Your task to perform on an android device: Do I have any events this weekend? Image 0: 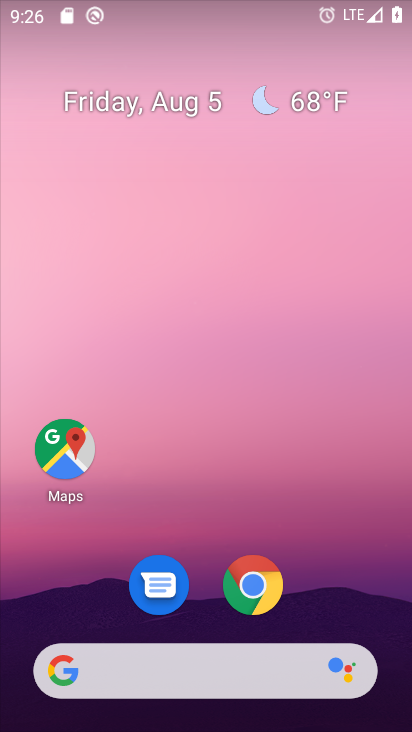
Step 0: drag from (216, 514) to (254, 23)
Your task to perform on an android device: Do I have any events this weekend? Image 1: 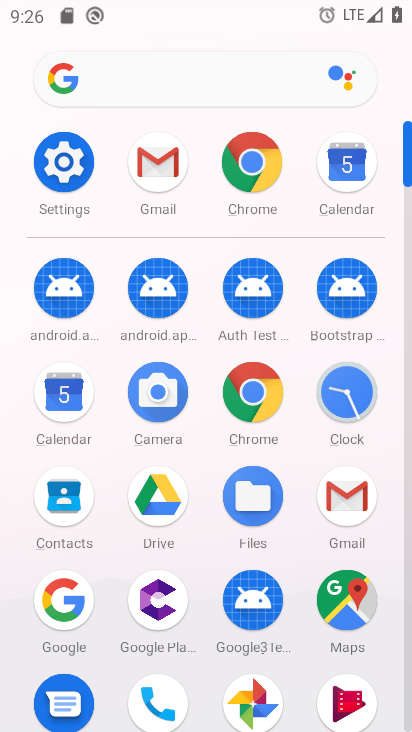
Step 1: click (344, 166)
Your task to perform on an android device: Do I have any events this weekend? Image 2: 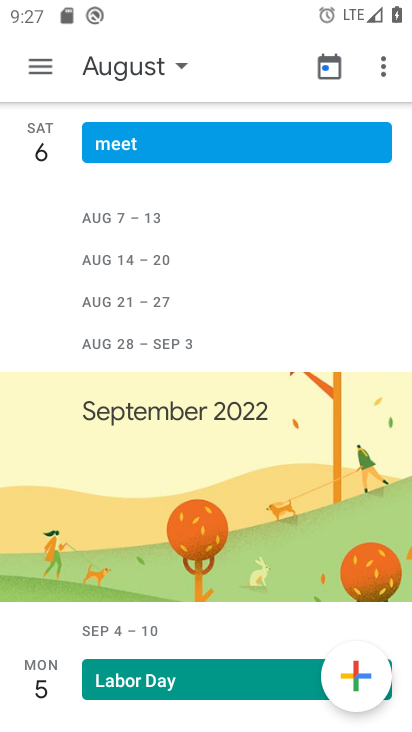
Step 2: click (43, 66)
Your task to perform on an android device: Do I have any events this weekend? Image 3: 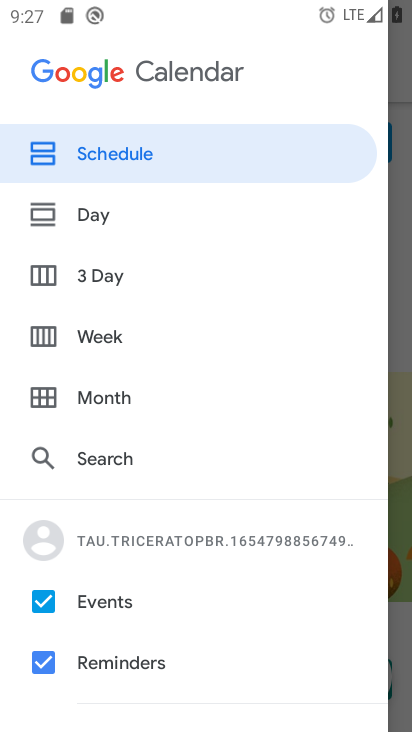
Step 3: click (61, 152)
Your task to perform on an android device: Do I have any events this weekend? Image 4: 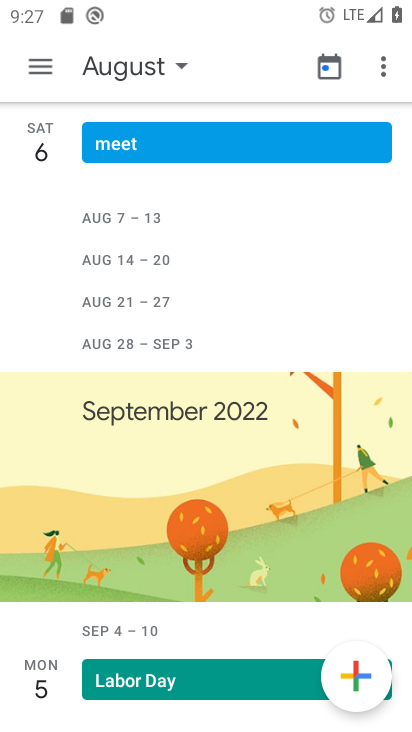
Step 4: task complete